Your task to perform on an android device: Check the weather Image 0: 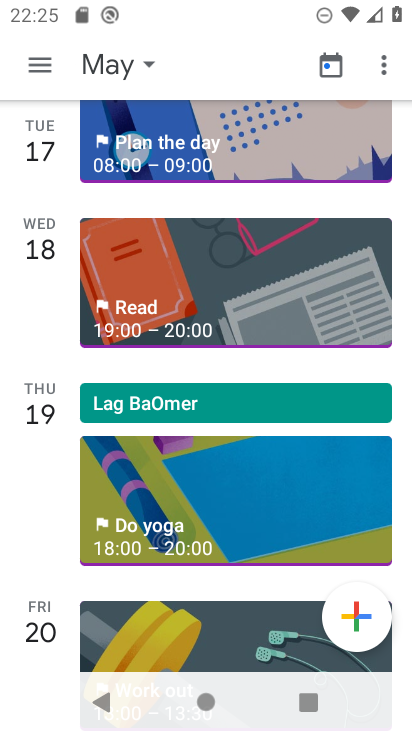
Step 0: press home button
Your task to perform on an android device: Check the weather Image 1: 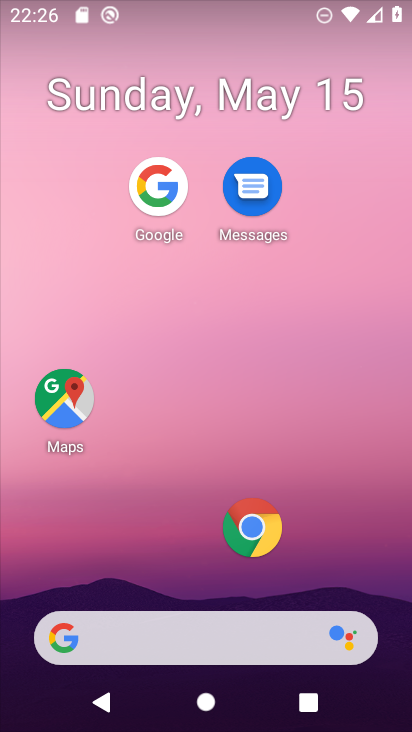
Step 1: click (72, 640)
Your task to perform on an android device: Check the weather Image 2: 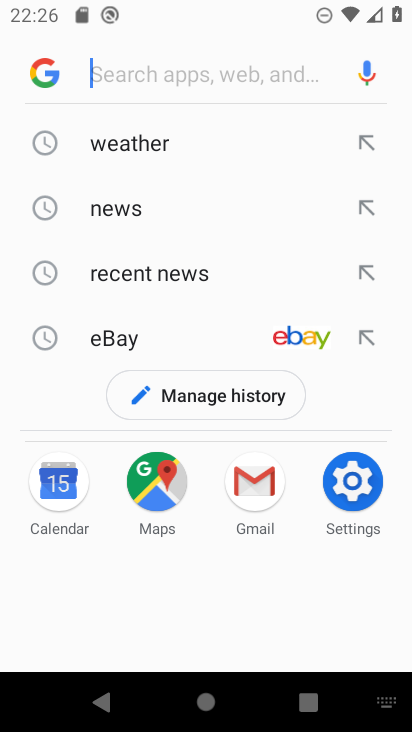
Step 2: click (149, 146)
Your task to perform on an android device: Check the weather Image 3: 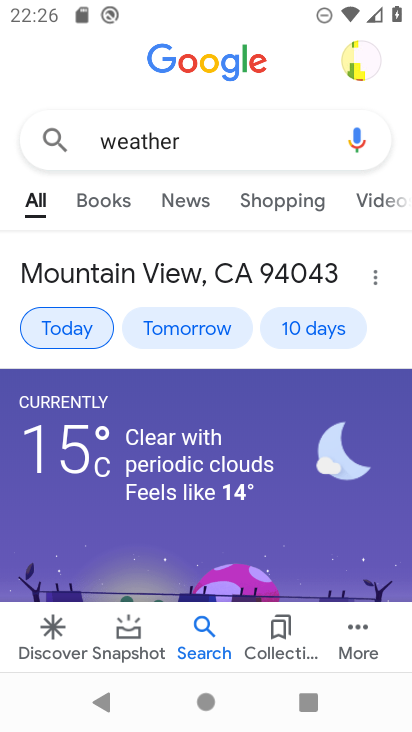
Step 3: task complete